Your task to perform on an android device: Go to Reddit.com Image 0: 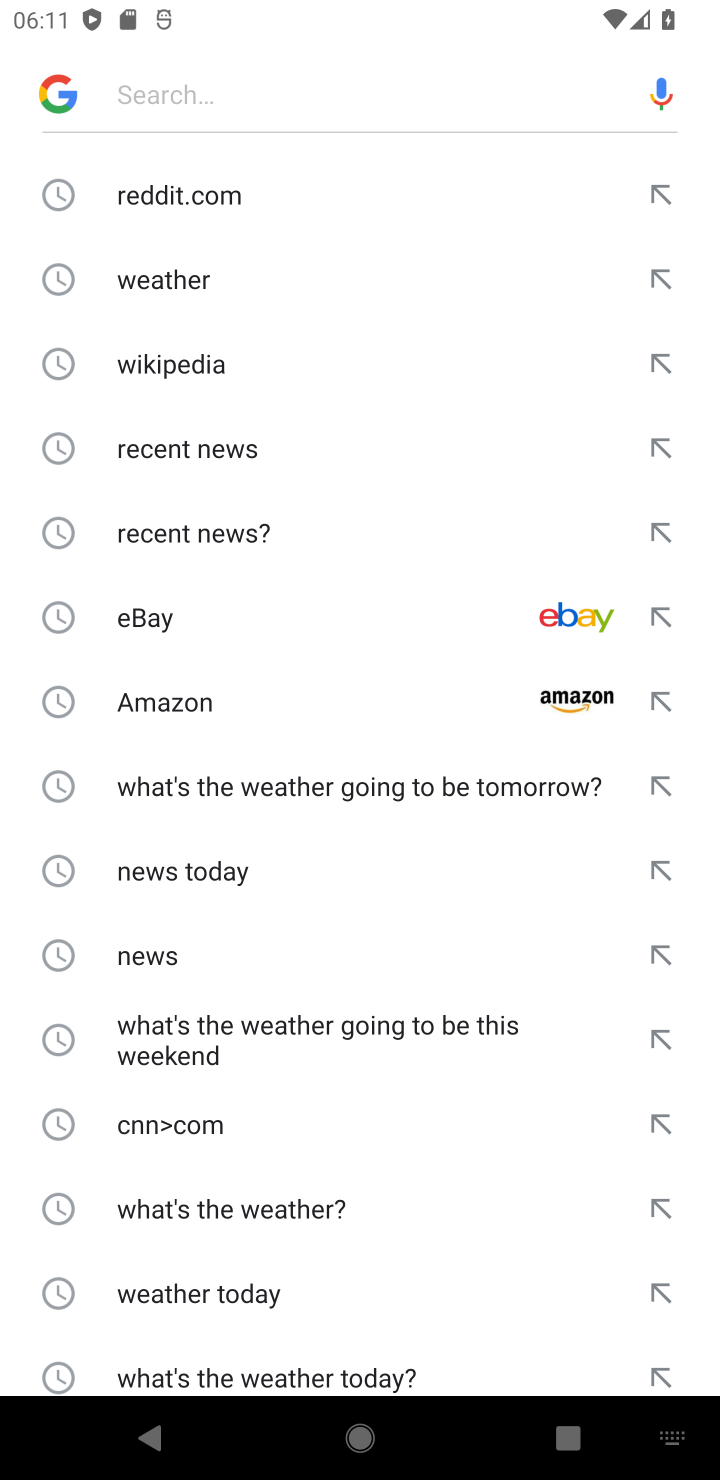
Step 0: press home button
Your task to perform on an android device: Go to Reddit.com Image 1: 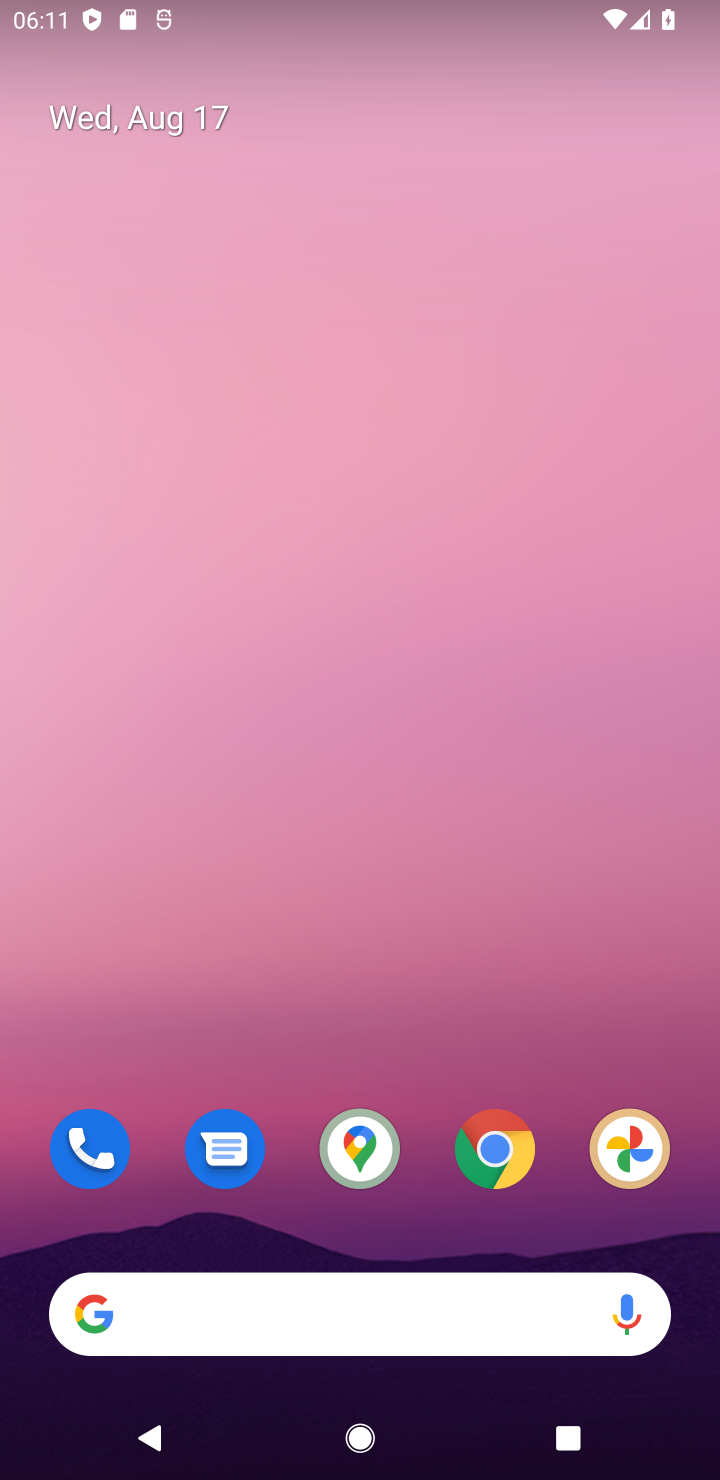
Step 1: click (505, 1159)
Your task to perform on an android device: Go to Reddit.com Image 2: 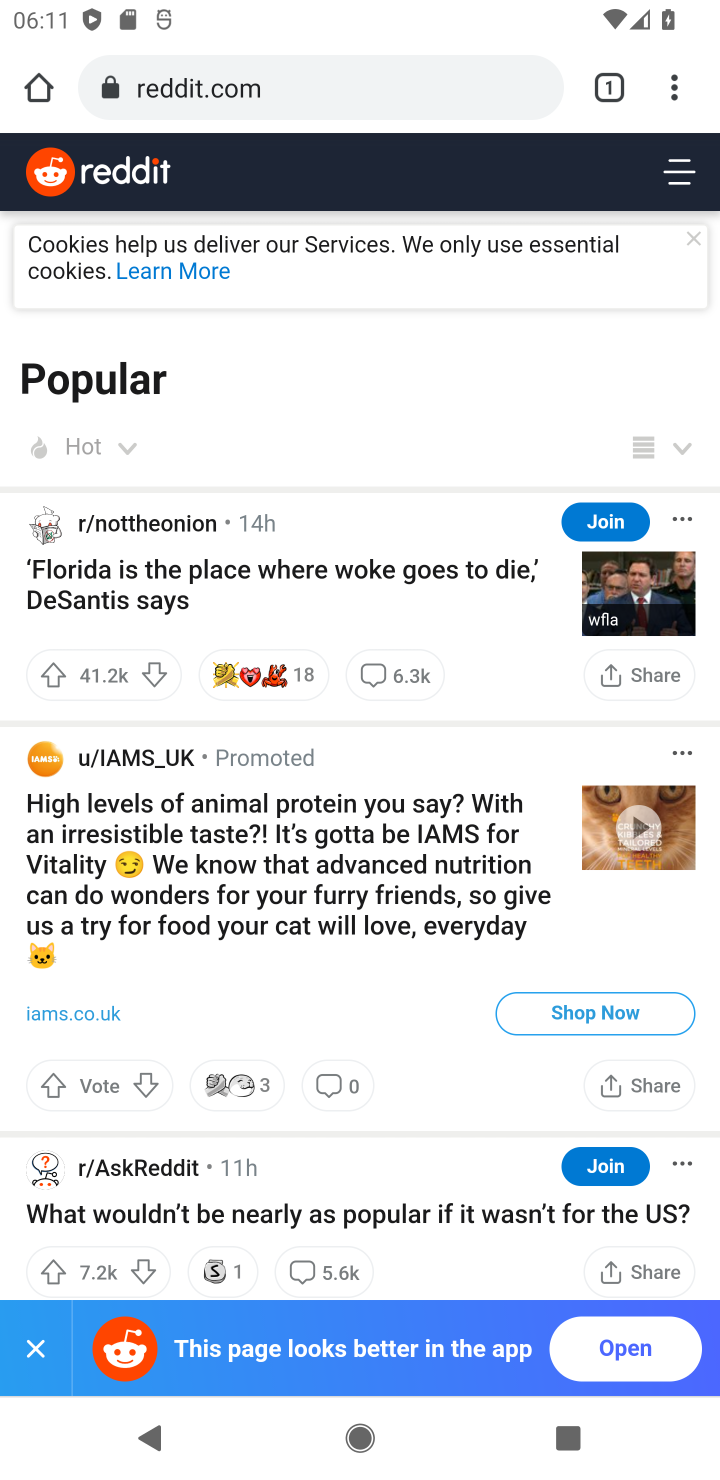
Step 2: task complete